Your task to perform on an android device: Show me popular videos on Youtube Image 0: 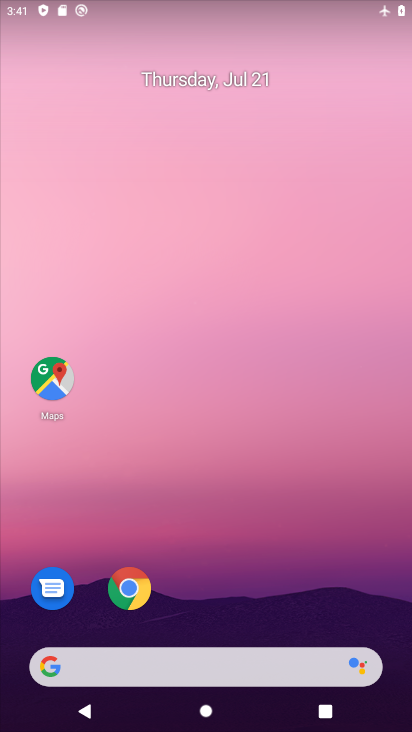
Step 0: drag from (242, 656) to (257, 221)
Your task to perform on an android device: Show me popular videos on Youtube Image 1: 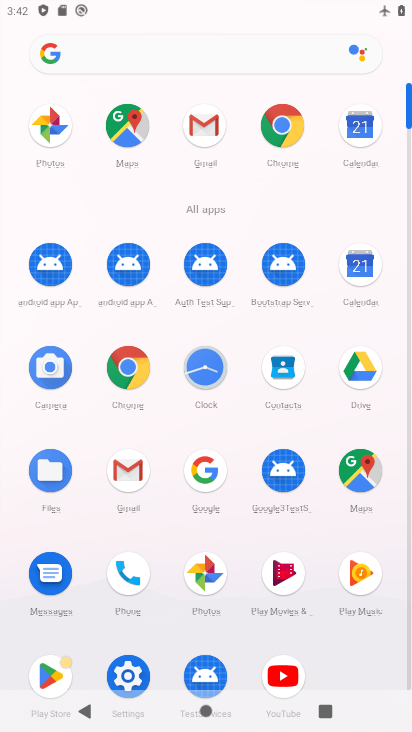
Step 1: drag from (289, 710) to (406, 540)
Your task to perform on an android device: Show me popular videos on Youtube Image 2: 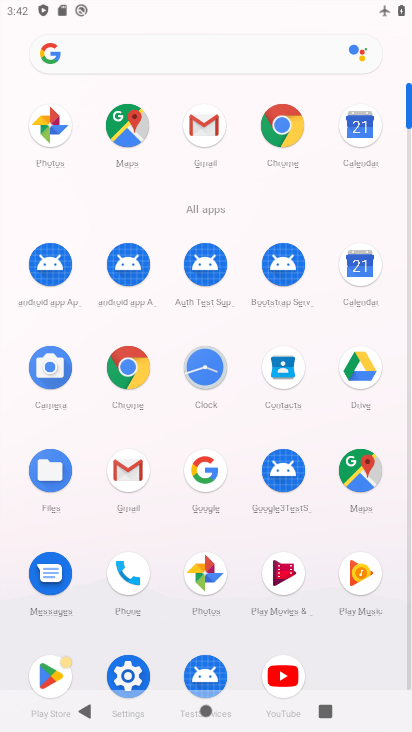
Step 2: click (282, 685)
Your task to perform on an android device: Show me popular videos on Youtube Image 3: 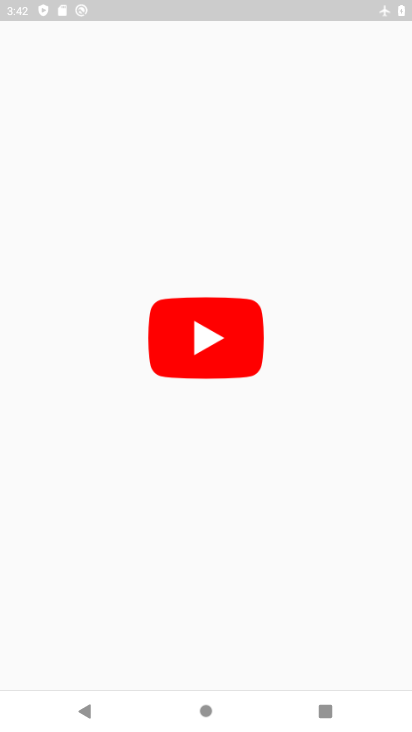
Step 3: click (202, 339)
Your task to perform on an android device: Show me popular videos on Youtube Image 4: 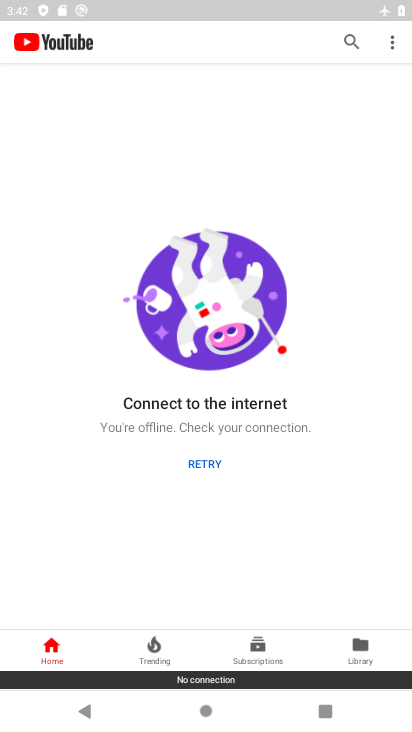
Step 4: click (354, 52)
Your task to perform on an android device: Show me popular videos on Youtube Image 5: 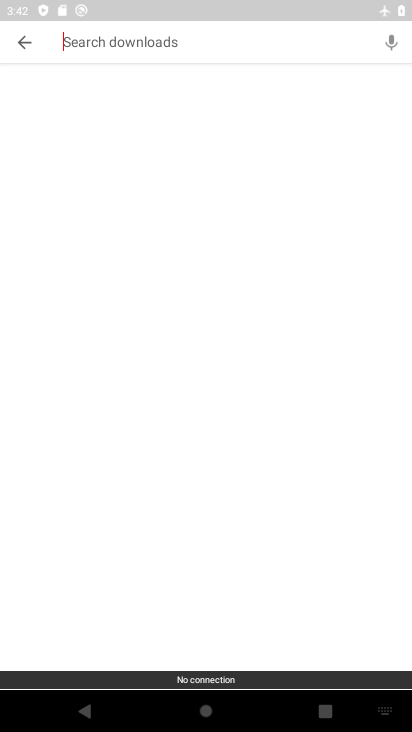
Step 5: click (182, 41)
Your task to perform on an android device: Show me popular videos on Youtube Image 6: 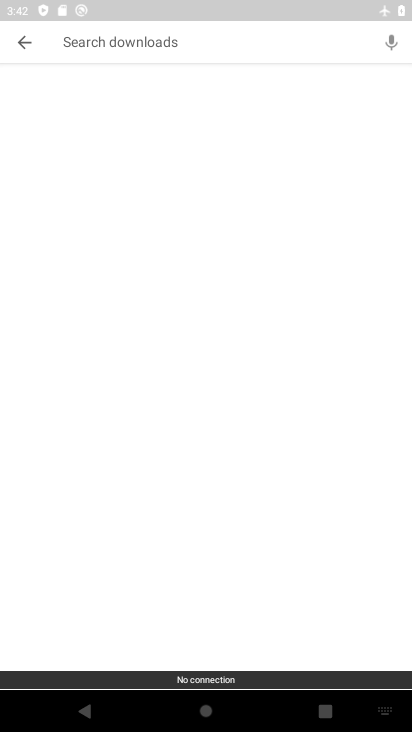
Step 6: press home button
Your task to perform on an android device: Show me popular videos on Youtube Image 7: 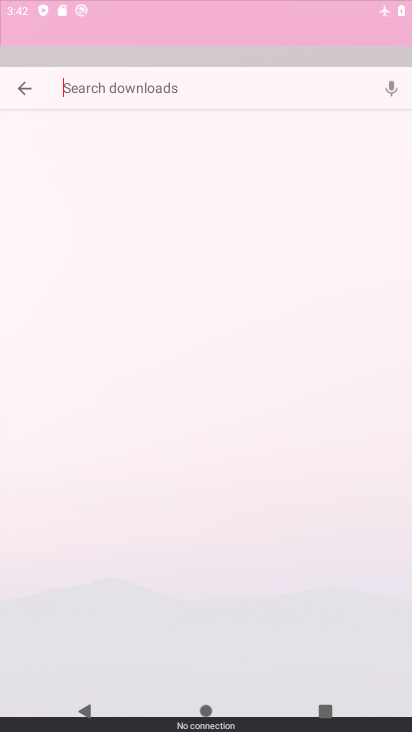
Step 7: drag from (292, 477) to (268, 2)
Your task to perform on an android device: Show me popular videos on Youtube Image 8: 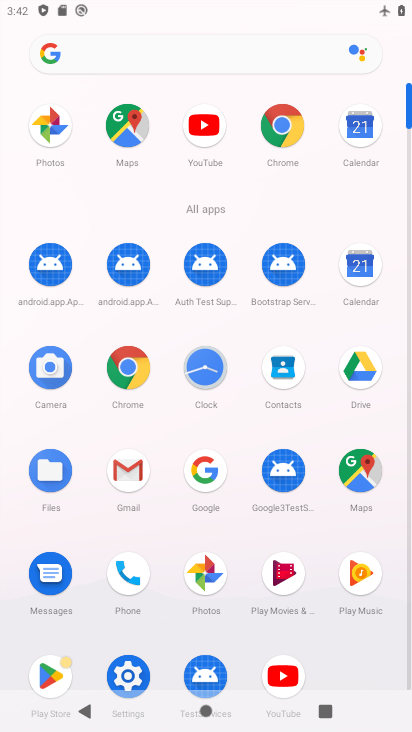
Step 8: click (197, 126)
Your task to perform on an android device: Show me popular videos on Youtube Image 9: 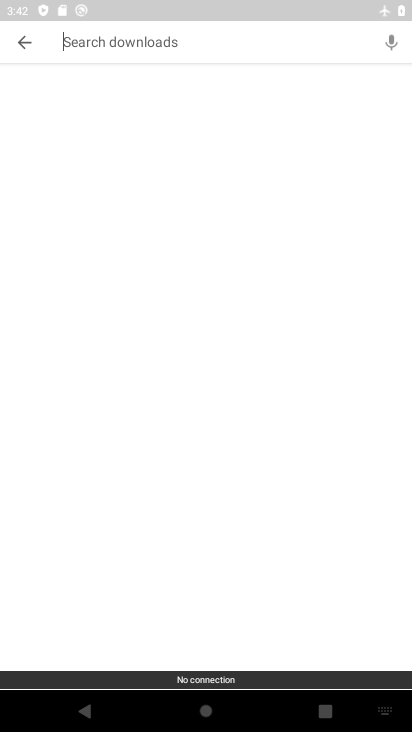
Step 9: drag from (352, 4) to (309, 355)
Your task to perform on an android device: Show me popular videos on Youtube Image 10: 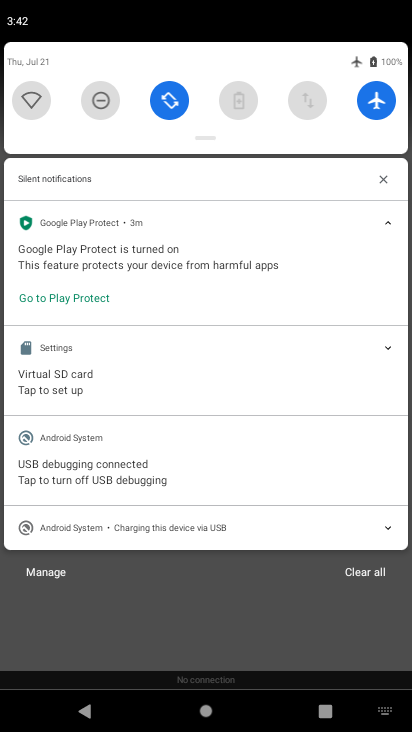
Step 10: click (374, 88)
Your task to perform on an android device: Show me popular videos on Youtube Image 11: 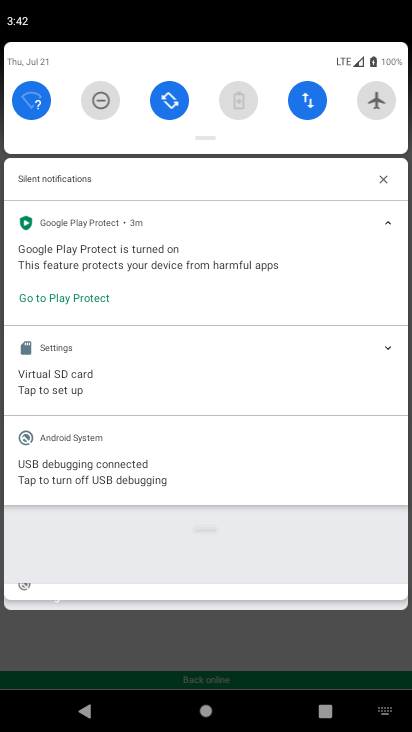
Step 11: drag from (347, 580) to (361, 4)
Your task to perform on an android device: Show me popular videos on Youtube Image 12: 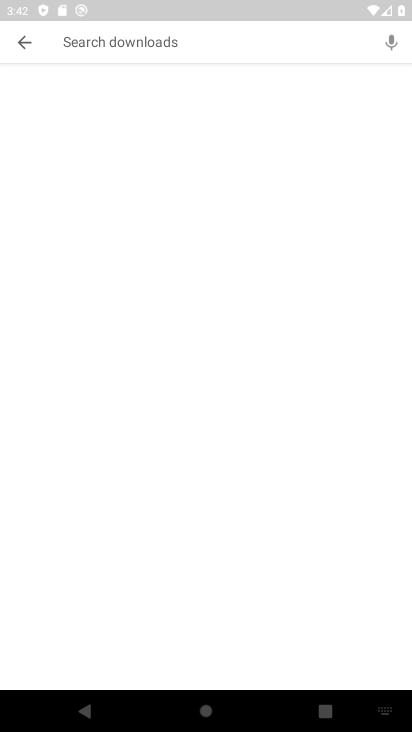
Step 12: type " popular videos on Youtube"
Your task to perform on an android device: Show me popular videos on Youtube Image 13: 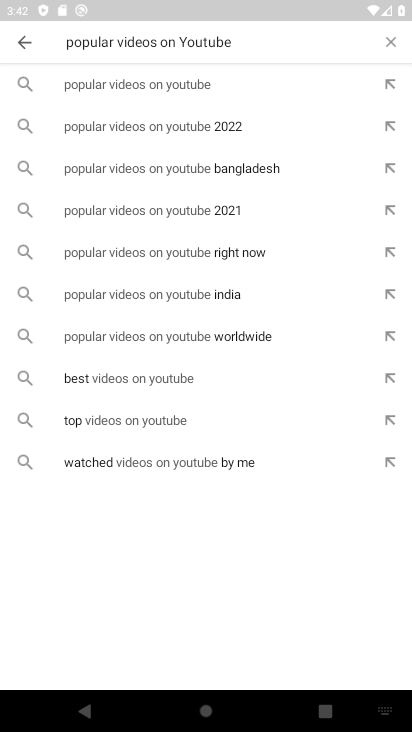
Step 13: click (86, 81)
Your task to perform on an android device: Show me popular videos on Youtube Image 14: 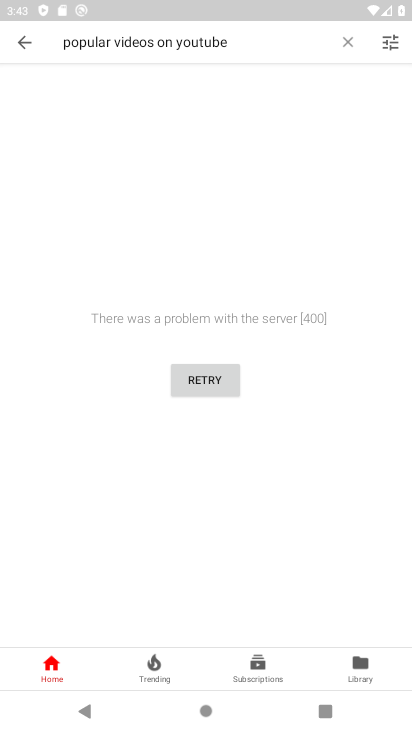
Step 14: press home button
Your task to perform on an android device: Show me popular videos on Youtube Image 15: 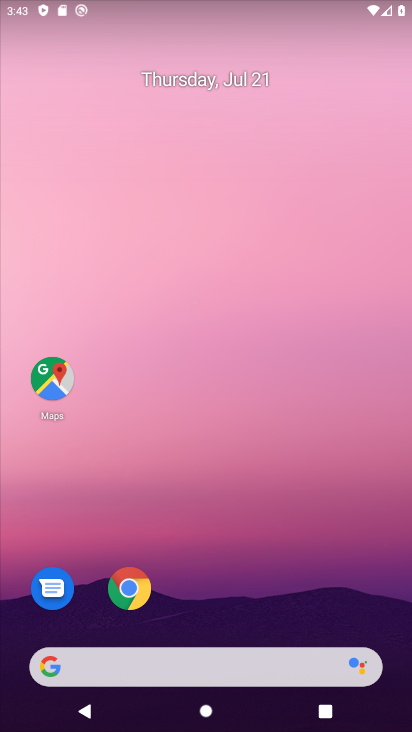
Step 15: drag from (291, 566) to (286, 9)
Your task to perform on an android device: Show me popular videos on Youtube Image 16: 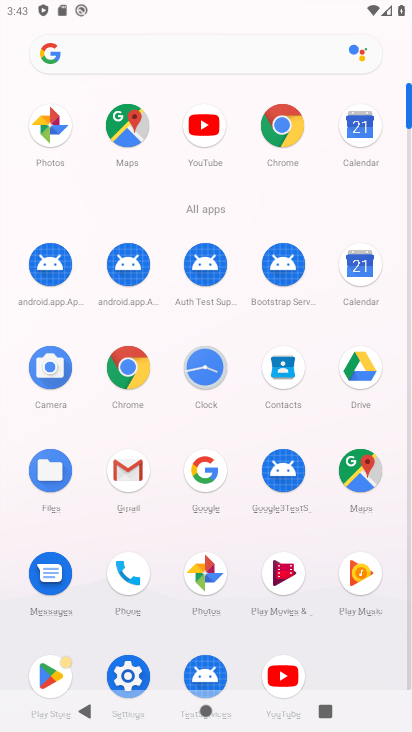
Step 16: click (294, 665)
Your task to perform on an android device: Show me popular videos on Youtube Image 17: 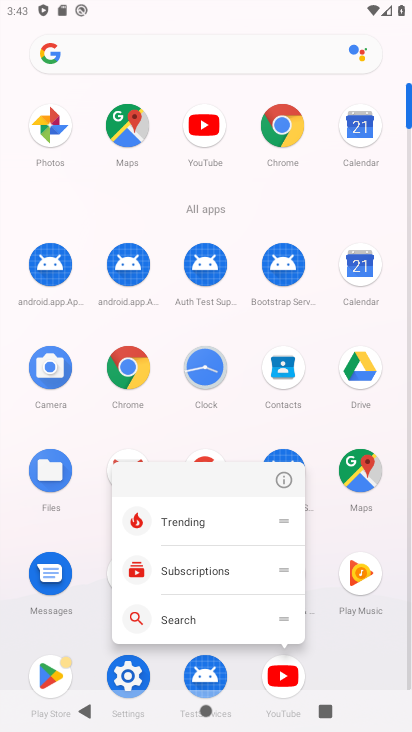
Step 17: click (281, 673)
Your task to perform on an android device: Show me popular videos on Youtube Image 18: 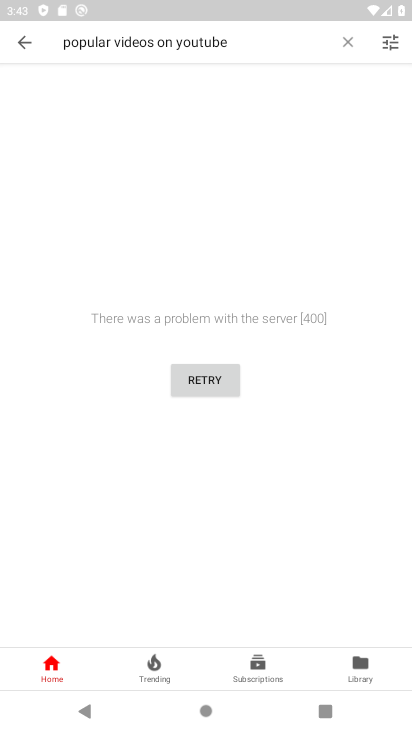
Step 18: task complete